Your task to perform on an android device: find which apps use the phone's location Image 0: 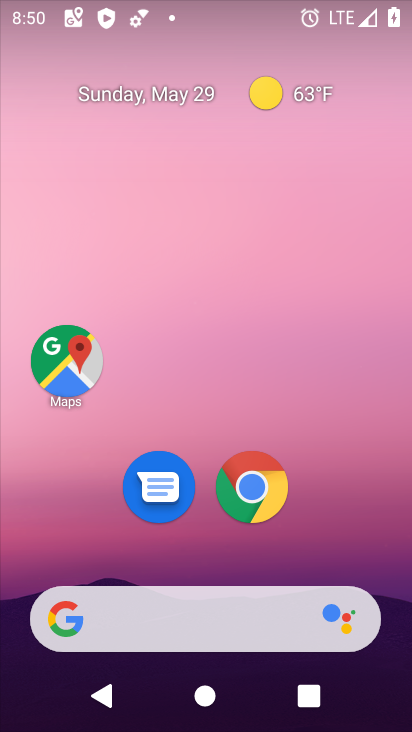
Step 0: drag from (172, 630) to (236, 114)
Your task to perform on an android device: find which apps use the phone's location Image 1: 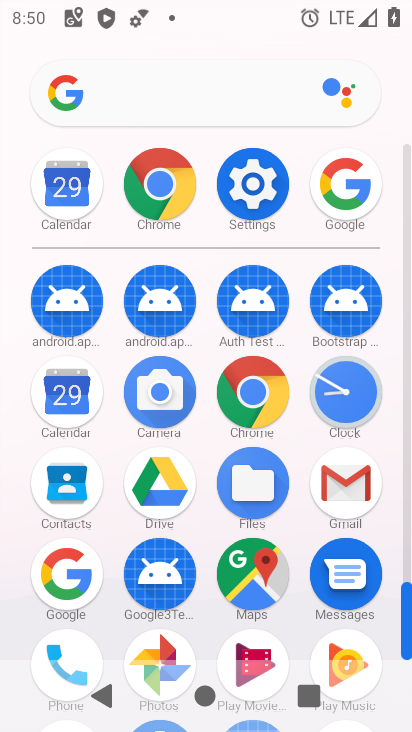
Step 1: click (267, 177)
Your task to perform on an android device: find which apps use the phone's location Image 2: 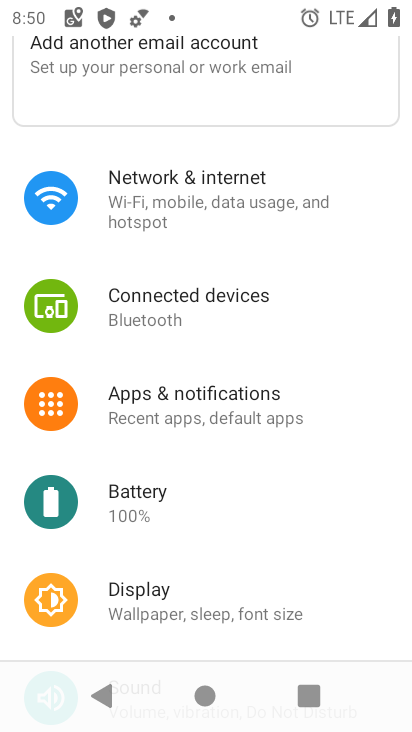
Step 2: drag from (183, 557) to (222, 299)
Your task to perform on an android device: find which apps use the phone's location Image 3: 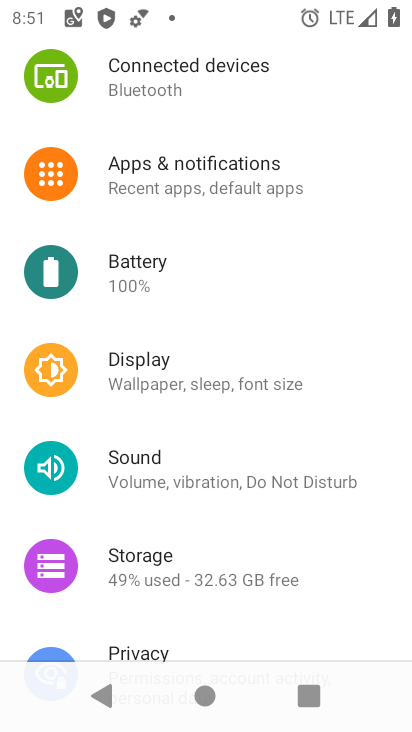
Step 3: drag from (178, 541) to (255, 231)
Your task to perform on an android device: find which apps use the phone's location Image 4: 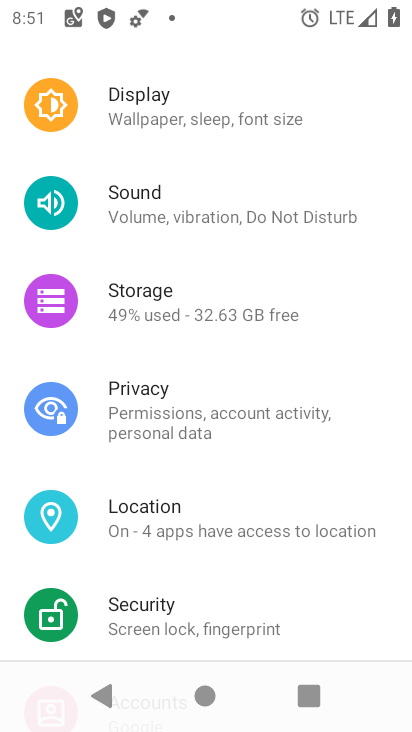
Step 4: click (180, 538)
Your task to perform on an android device: find which apps use the phone's location Image 5: 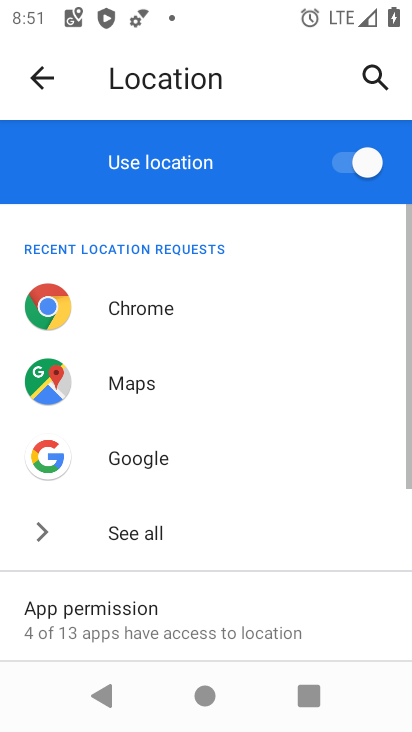
Step 5: click (93, 607)
Your task to perform on an android device: find which apps use the phone's location Image 6: 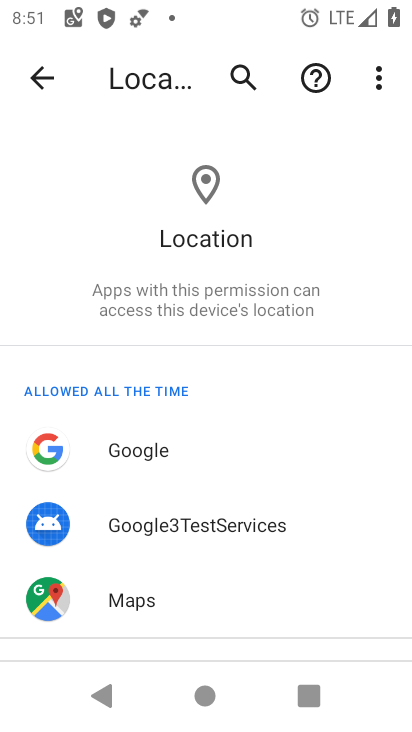
Step 6: task complete